Your task to perform on an android device: Open calendar and show me the third week of next month Image 0: 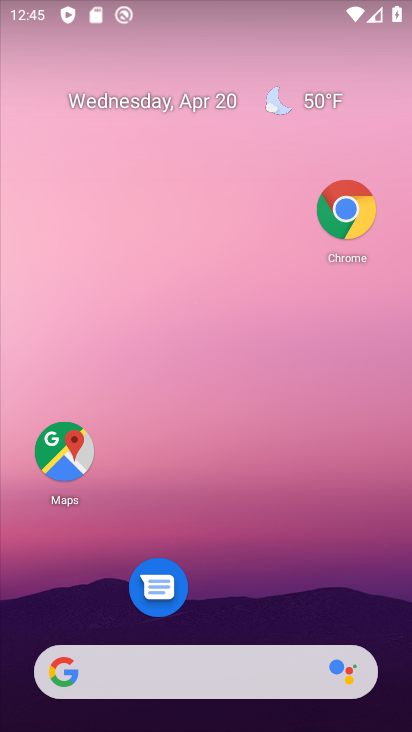
Step 0: drag from (263, 572) to (407, 7)
Your task to perform on an android device: Open calendar and show me the third week of next month Image 1: 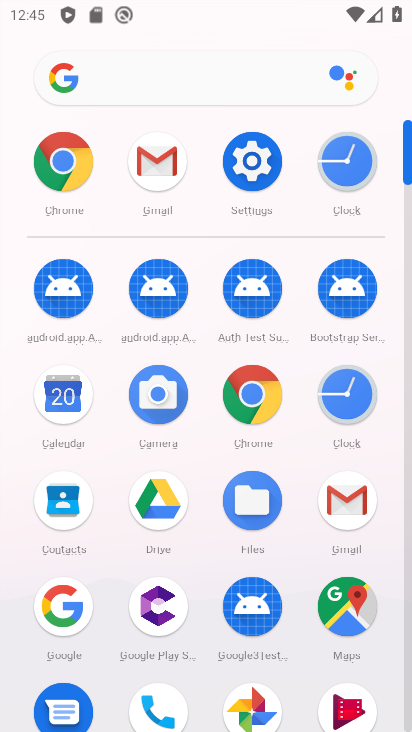
Step 1: click (66, 399)
Your task to perform on an android device: Open calendar and show me the third week of next month Image 2: 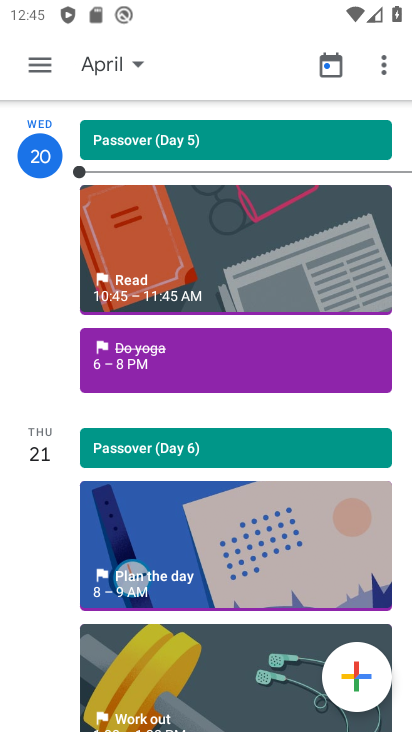
Step 2: click (94, 57)
Your task to perform on an android device: Open calendar and show me the third week of next month Image 3: 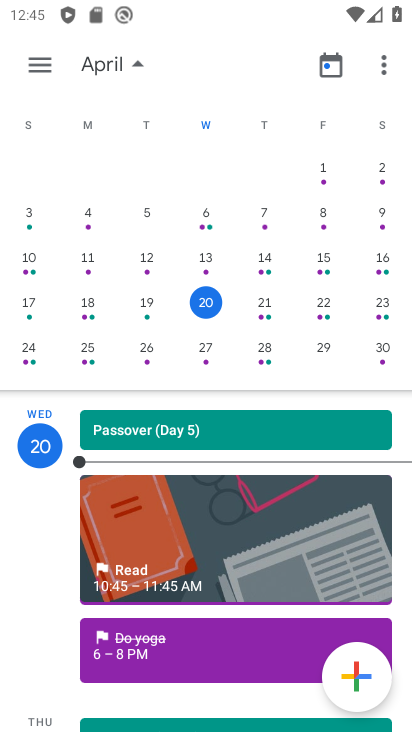
Step 3: drag from (318, 275) to (1, 90)
Your task to perform on an android device: Open calendar and show me the third week of next month Image 4: 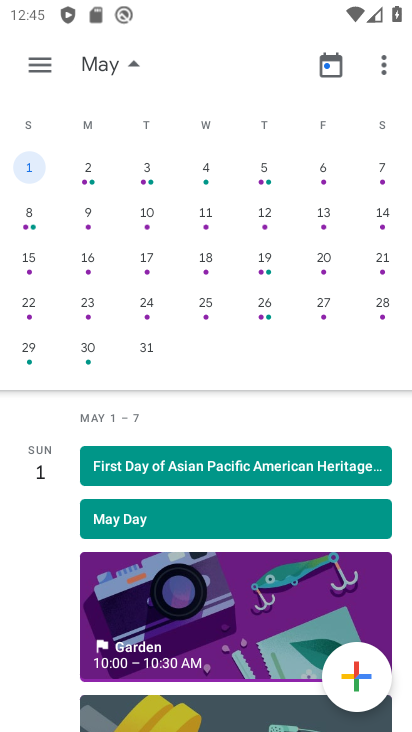
Step 4: click (49, 60)
Your task to perform on an android device: Open calendar and show me the third week of next month Image 5: 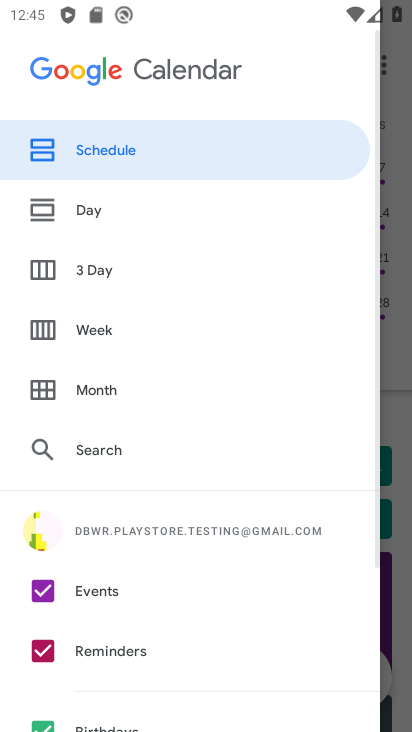
Step 5: click (104, 333)
Your task to perform on an android device: Open calendar and show me the third week of next month Image 6: 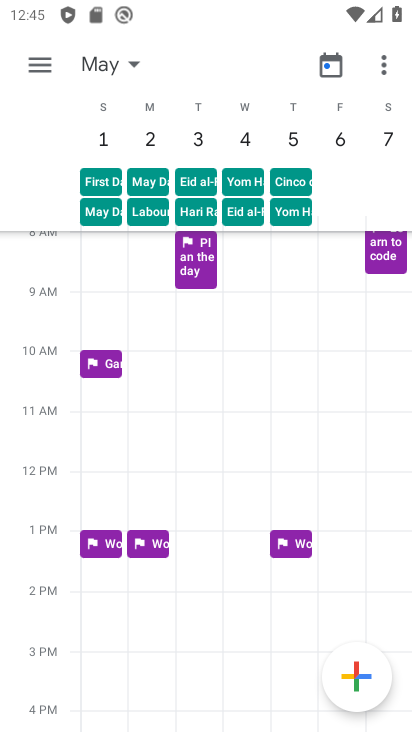
Step 6: task complete